Your task to perform on an android device: turn notification dots off Image 0: 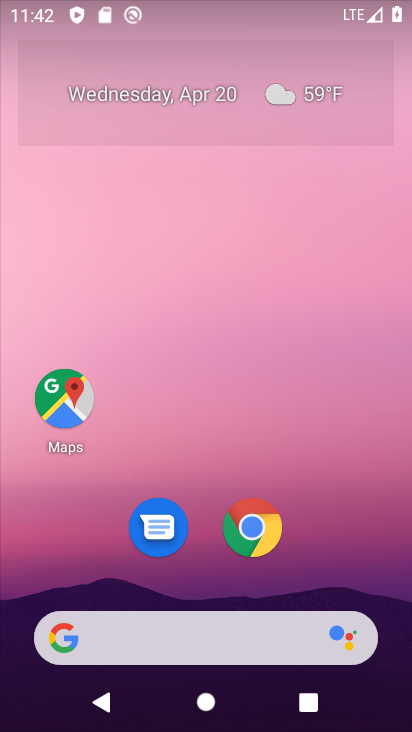
Step 0: drag from (344, 383) to (338, 86)
Your task to perform on an android device: turn notification dots off Image 1: 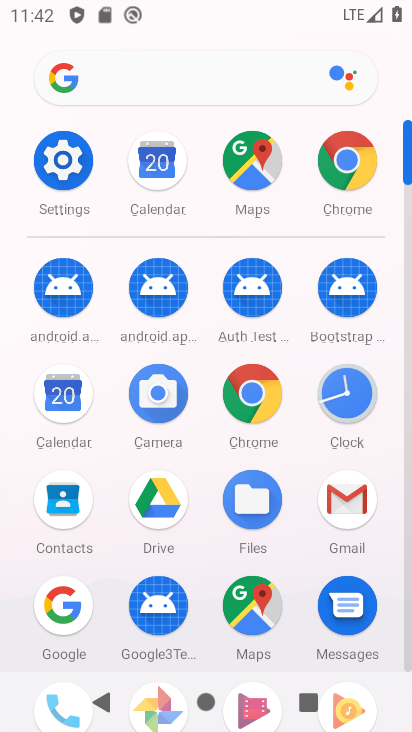
Step 1: click (84, 181)
Your task to perform on an android device: turn notification dots off Image 2: 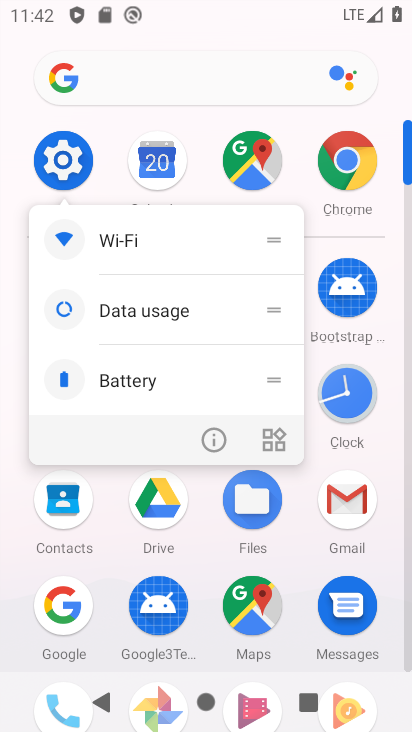
Step 2: click (84, 181)
Your task to perform on an android device: turn notification dots off Image 3: 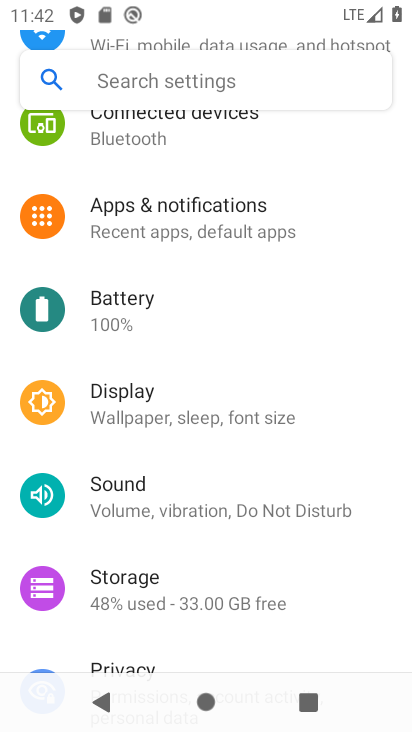
Step 3: click (214, 218)
Your task to perform on an android device: turn notification dots off Image 4: 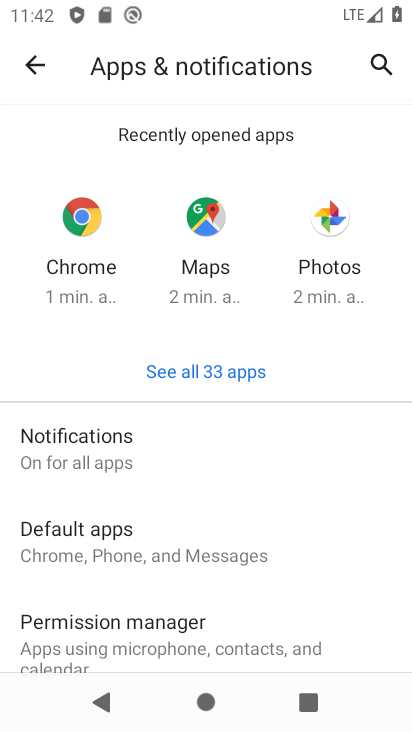
Step 4: click (90, 439)
Your task to perform on an android device: turn notification dots off Image 5: 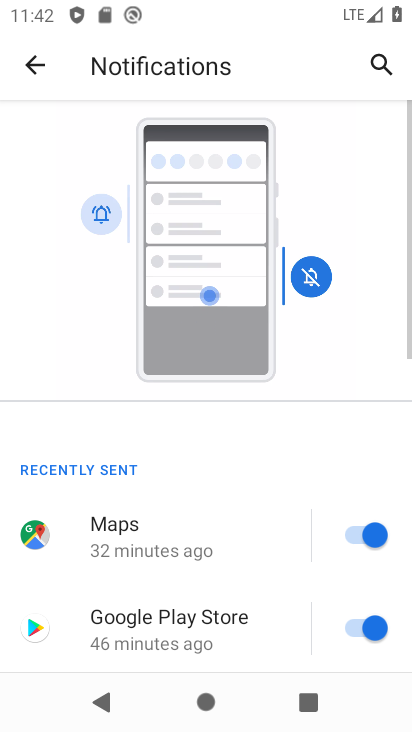
Step 5: click (280, 237)
Your task to perform on an android device: turn notification dots off Image 6: 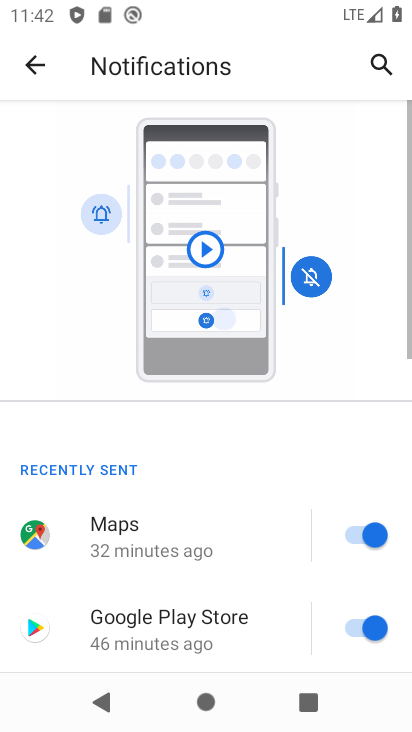
Step 6: drag from (261, 627) to (266, 184)
Your task to perform on an android device: turn notification dots off Image 7: 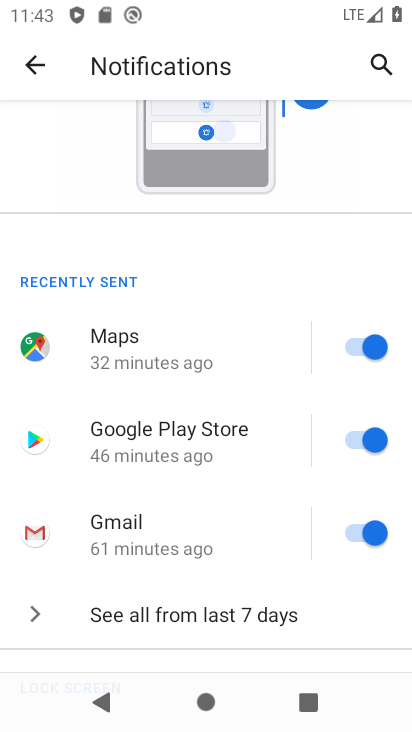
Step 7: drag from (238, 444) to (263, 214)
Your task to perform on an android device: turn notification dots off Image 8: 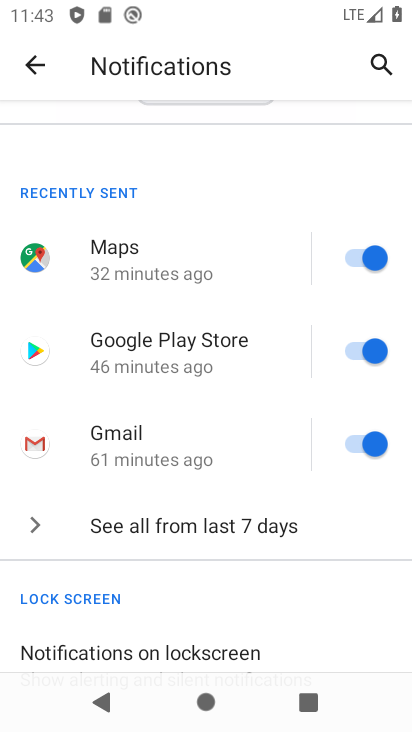
Step 8: drag from (244, 560) to (289, 212)
Your task to perform on an android device: turn notification dots off Image 9: 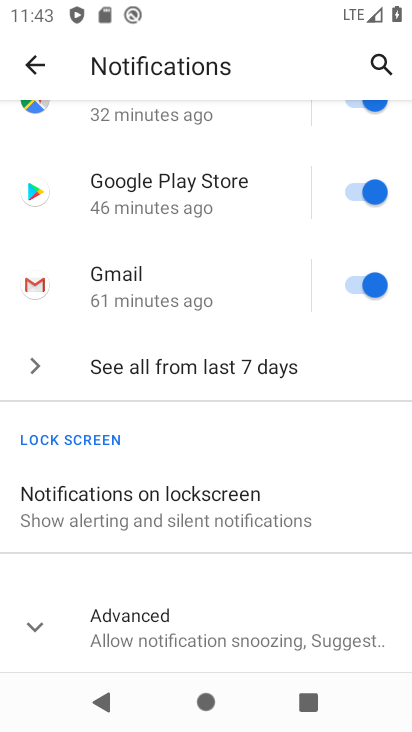
Step 9: click (253, 614)
Your task to perform on an android device: turn notification dots off Image 10: 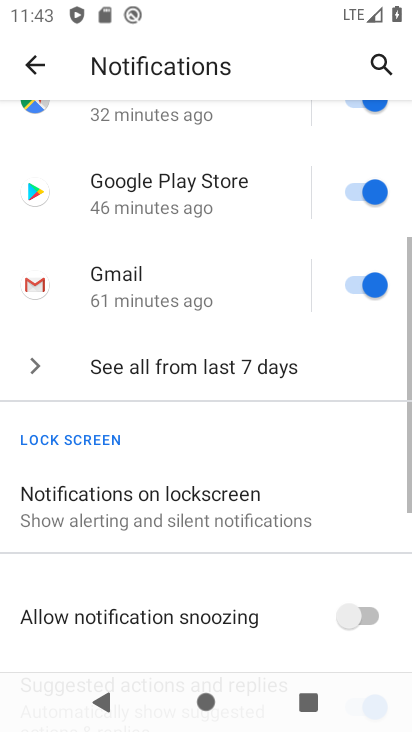
Step 10: drag from (275, 583) to (294, 202)
Your task to perform on an android device: turn notification dots off Image 11: 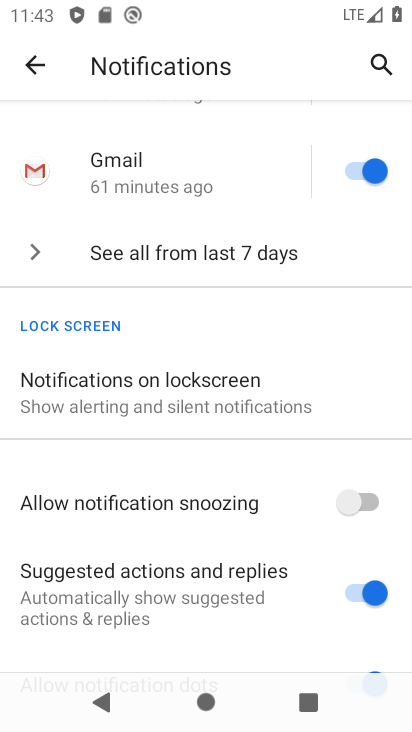
Step 11: drag from (278, 576) to (270, 319)
Your task to perform on an android device: turn notification dots off Image 12: 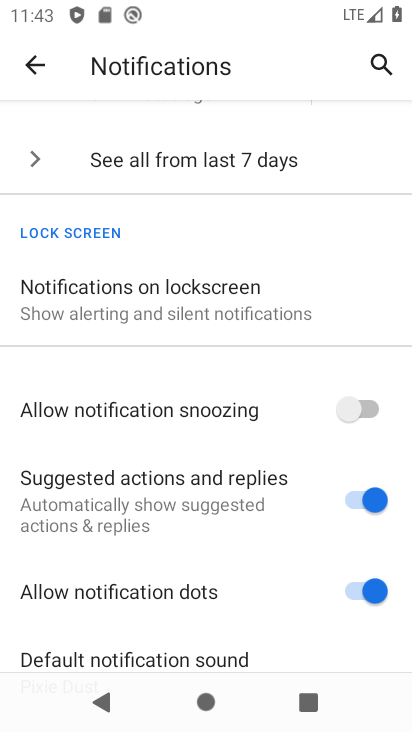
Step 12: click (354, 593)
Your task to perform on an android device: turn notification dots off Image 13: 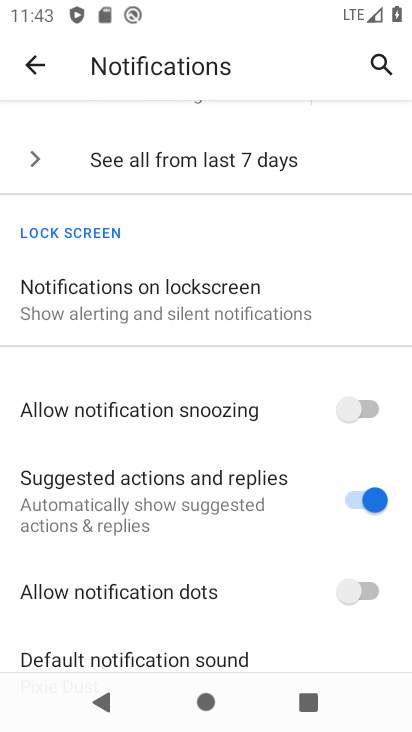
Step 13: task complete